Your task to perform on an android device: open app "Gmail" (install if not already installed) Image 0: 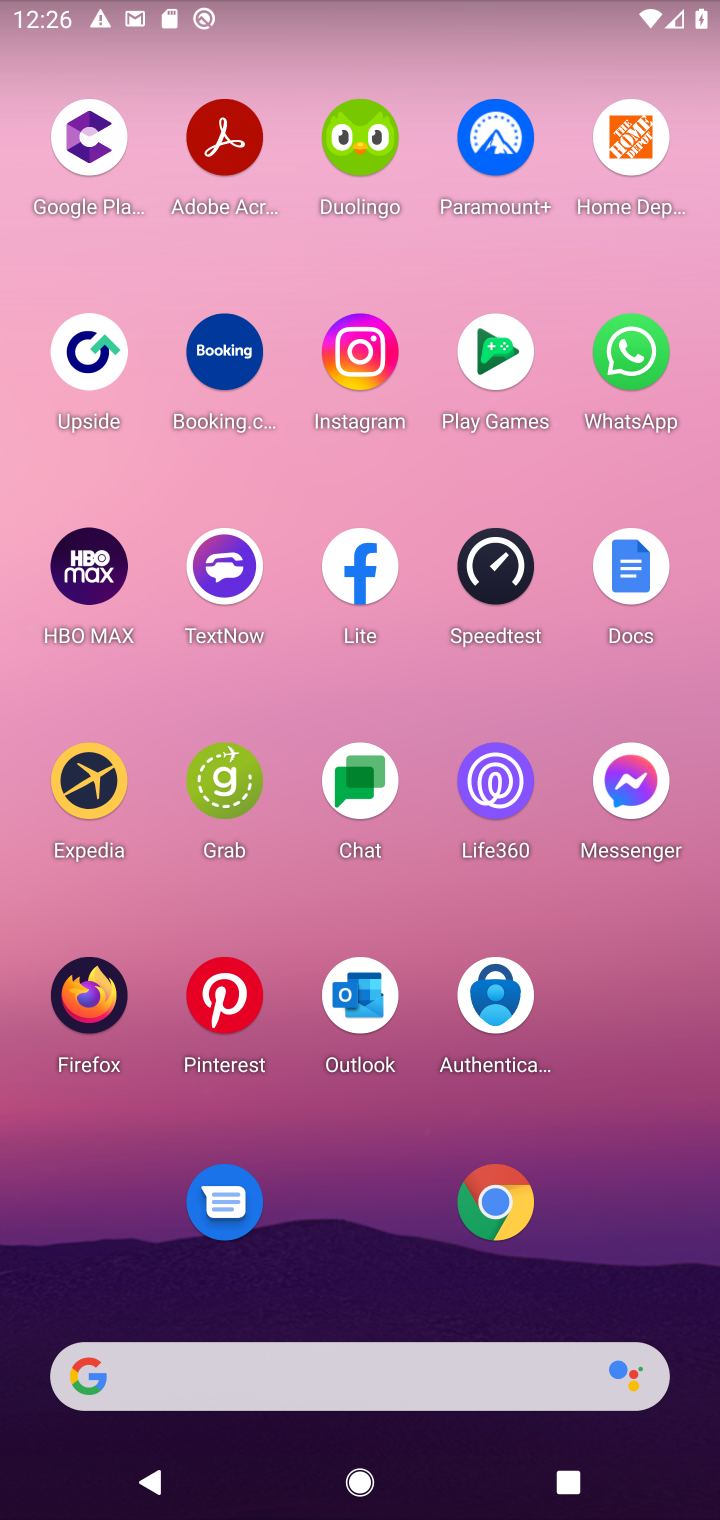
Step 0: drag from (391, 1287) to (370, 83)
Your task to perform on an android device: open app "Gmail" (install if not already installed) Image 1: 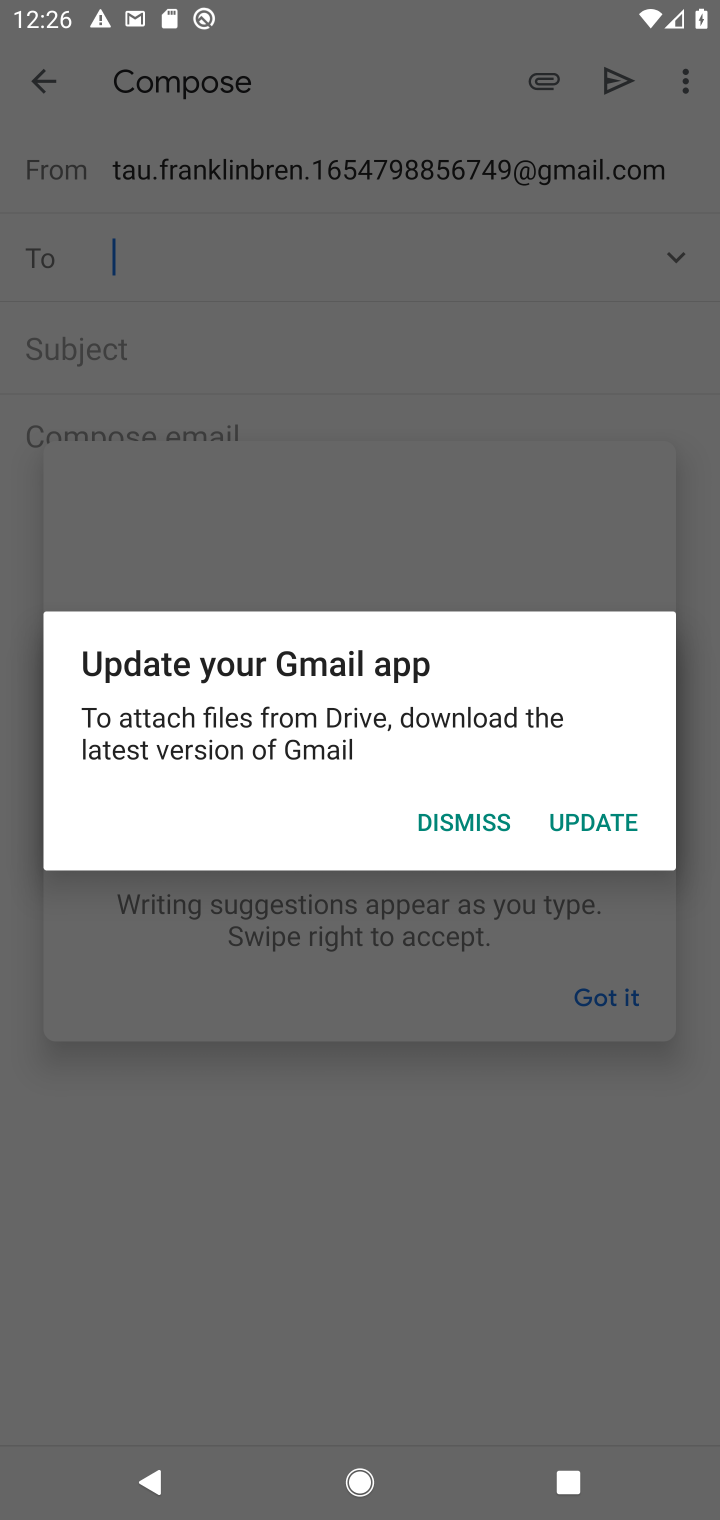
Step 1: task complete